Your task to perform on an android device: Open the calendar app, open the side menu, and click the "Day" option Image 0: 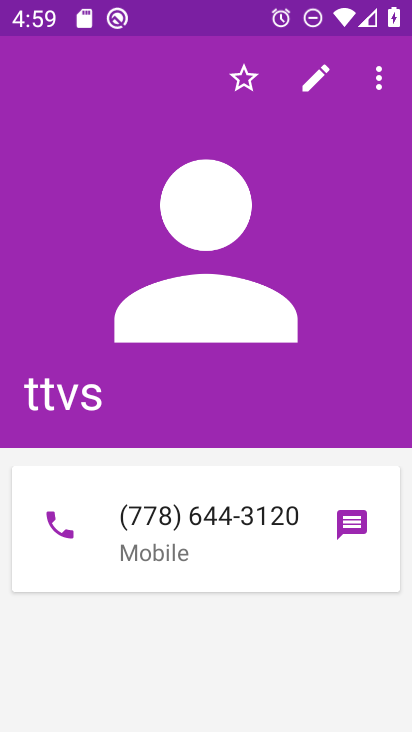
Step 0: press home button
Your task to perform on an android device: Open the calendar app, open the side menu, and click the "Day" option Image 1: 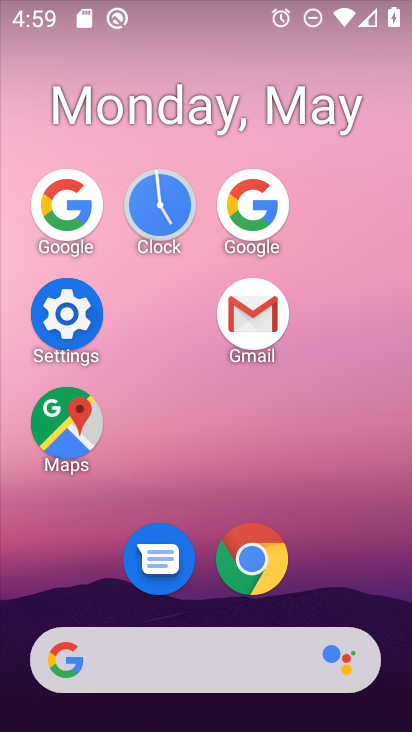
Step 1: drag from (341, 548) to (303, 96)
Your task to perform on an android device: Open the calendar app, open the side menu, and click the "Day" option Image 2: 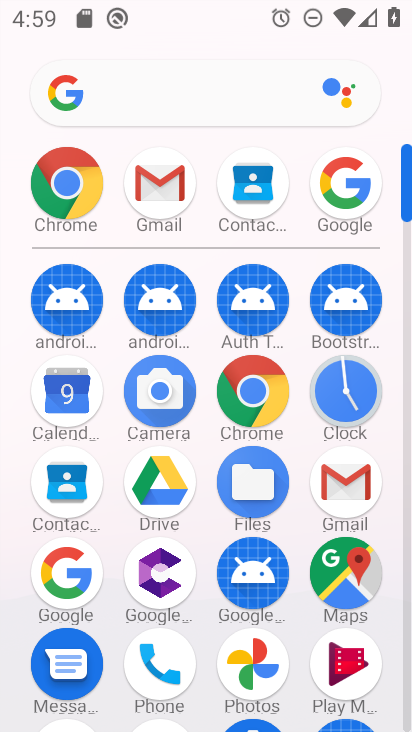
Step 2: click (76, 408)
Your task to perform on an android device: Open the calendar app, open the side menu, and click the "Day" option Image 3: 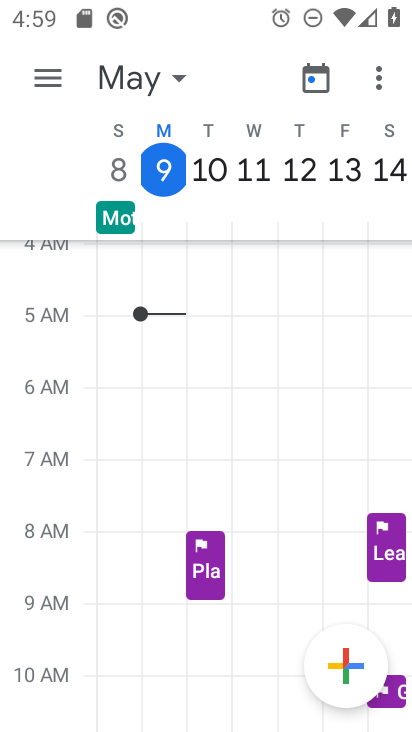
Step 3: click (29, 85)
Your task to perform on an android device: Open the calendar app, open the side menu, and click the "Day" option Image 4: 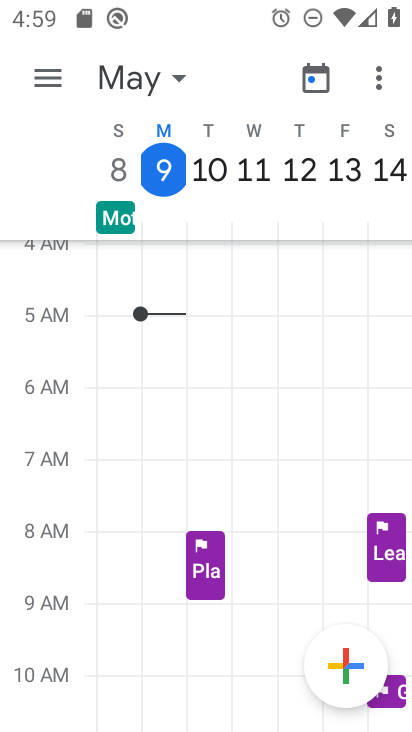
Step 4: click (42, 79)
Your task to perform on an android device: Open the calendar app, open the side menu, and click the "Day" option Image 5: 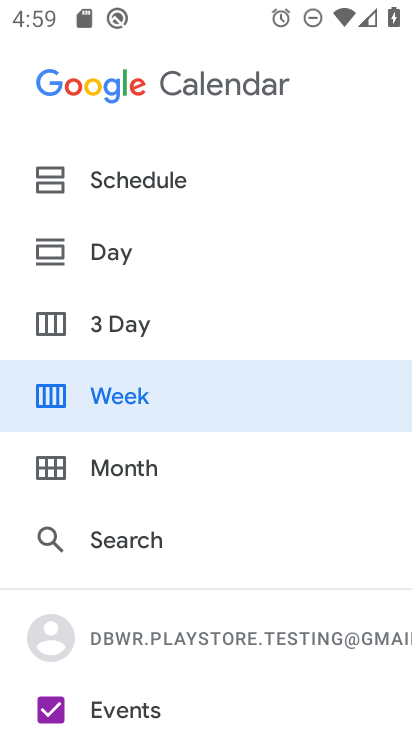
Step 5: click (161, 240)
Your task to perform on an android device: Open the calendar app, open the side menu, and click the "Day" option Image 6: 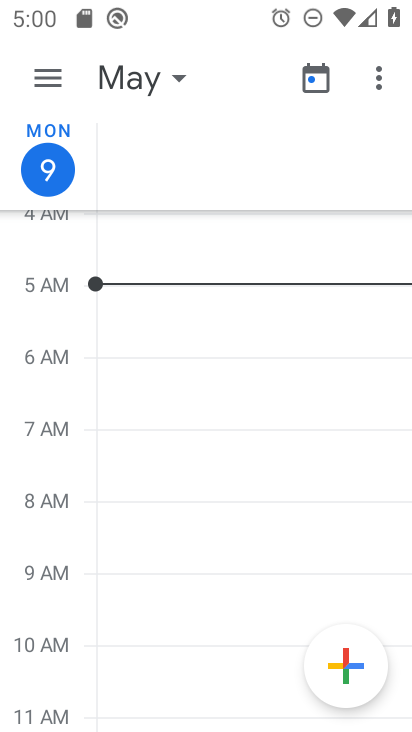
Step 6: task complete